Your task to perform on an android device: Do I have any events this weekend? Image 0: 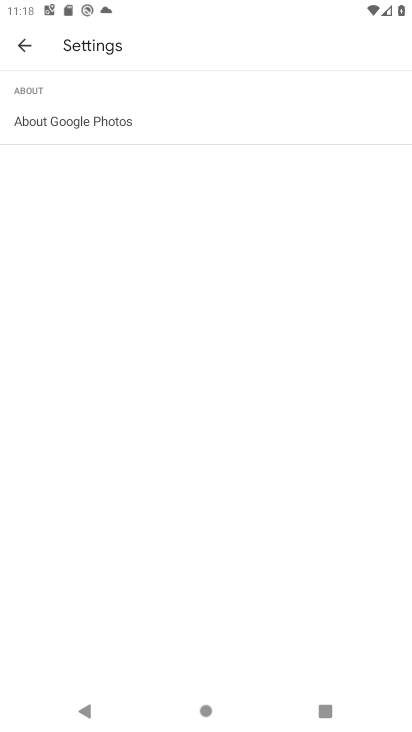
Step 0: press home button
Your task to perform on an android device: Do I have any events this weekend? Image 1: 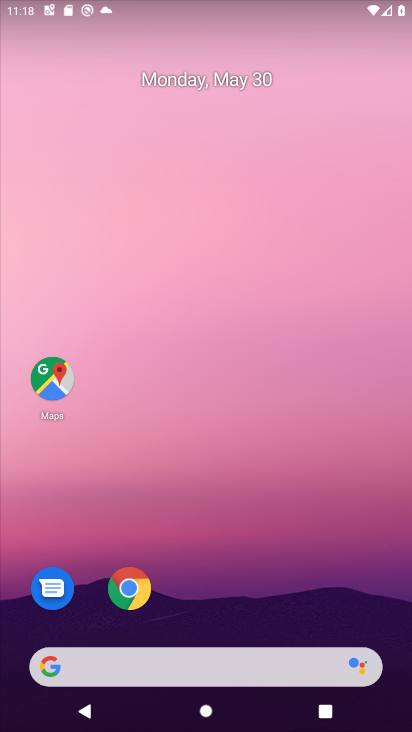
Step 1: drag from (245, 575) to (373, 67)
Your task to perform on an android device: Do I have any events this weekend? Image 2: 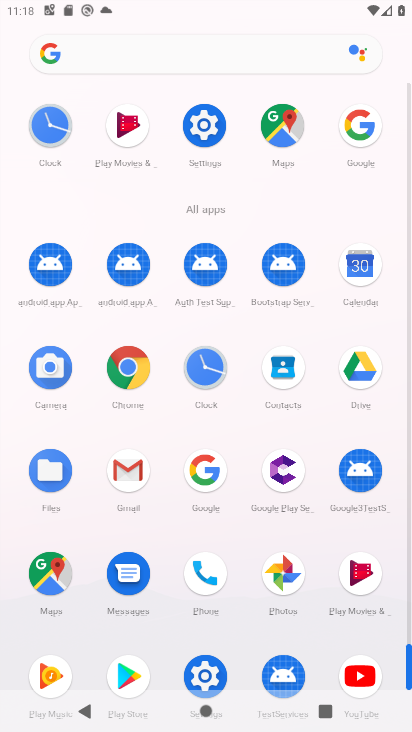
Step 2: click (372, 279)
Your task to perform on an android device: Do I have any events this weekend? Image 3: 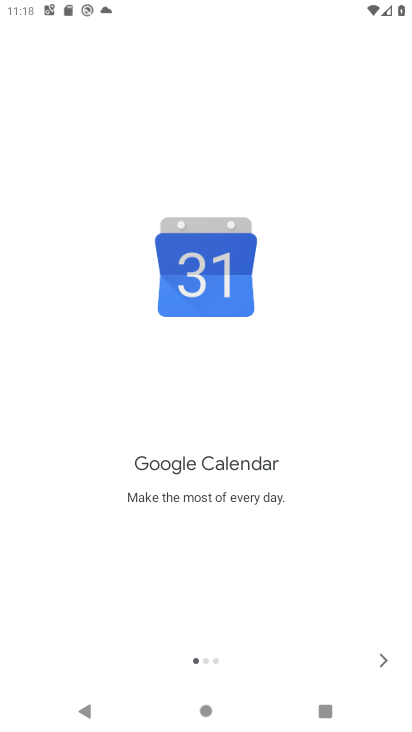
Step 3: click (393, 674)
Your task to perform on an android device: Do I have any events this weekend? Image 4: 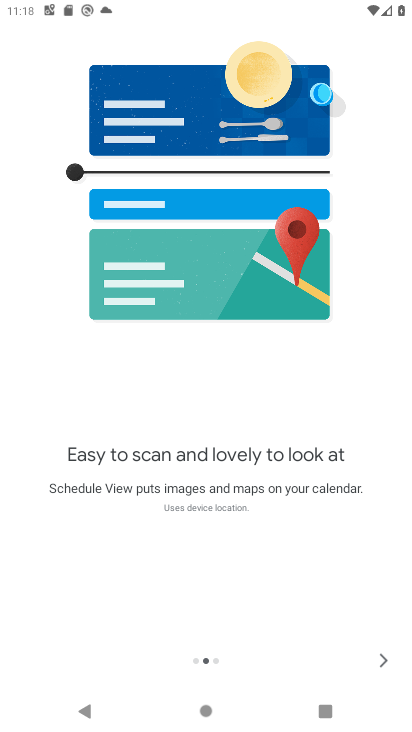
Step 4: click (393, 674)
Your task to perform on an android device: Do I have any events this weekend? Image 5: 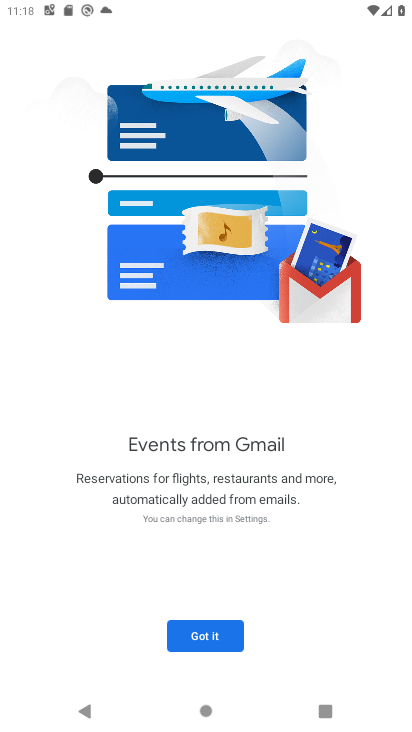
Step 5: click (226, 639)
Your task to perform on an android device: Do I have any events this weekend? Image 6: 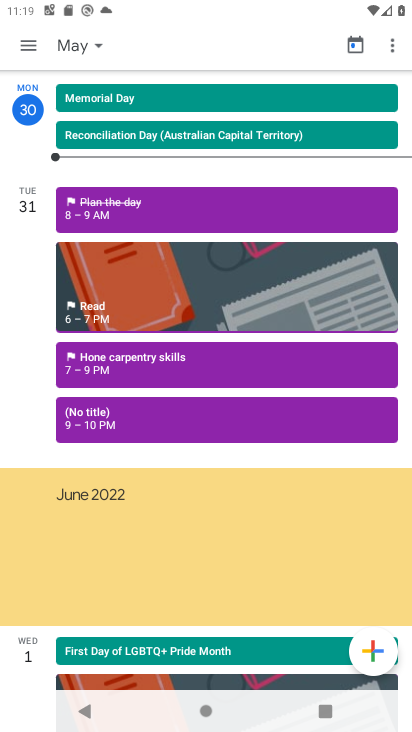
Step 6: click (83, 31)
Your task to perform on an android device: Do I have any events this weekend? Image 7: 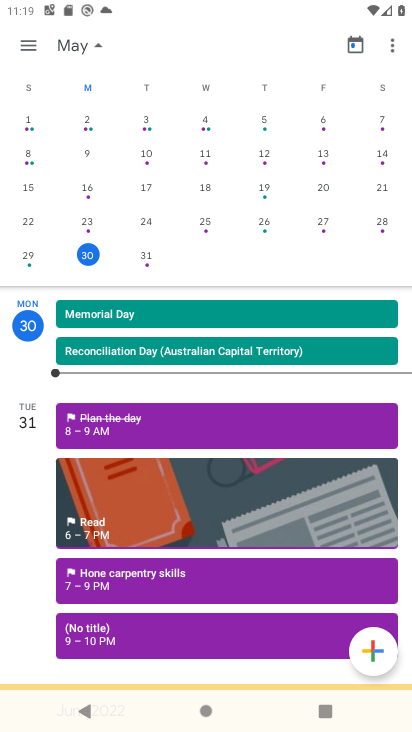
Step 7: drag from (319, 211) to (12, 157)
Your task to perform on an android device: Do I have any events this weekend? Image 8: 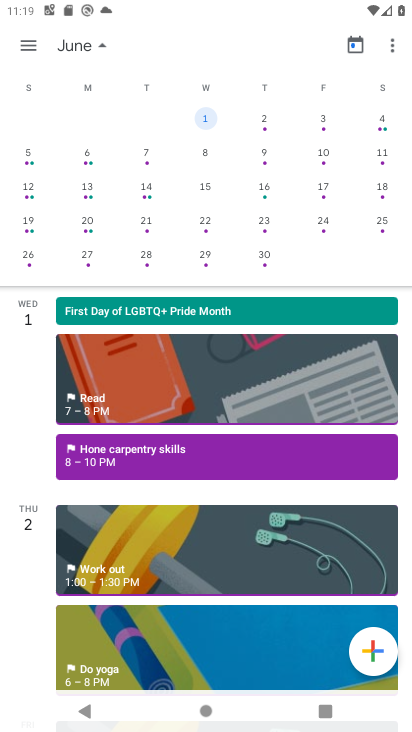
Step 8: click (382, 122)
Your task to perform on an android device: Do I have any events this weekend? Image 9: 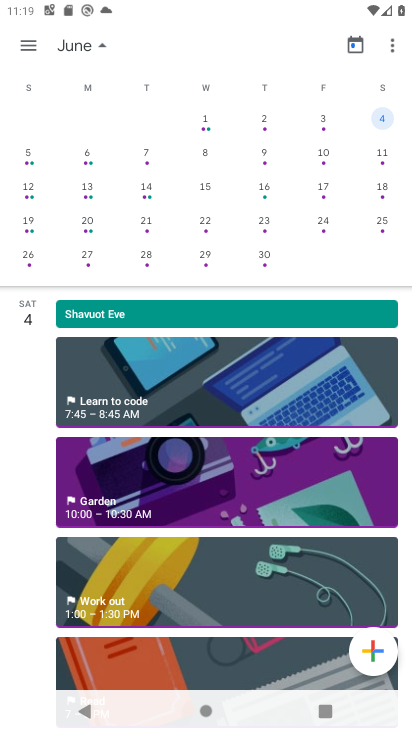
Step 9: task complete